Your task to perform on an android device: turn notification dots on Image 0: 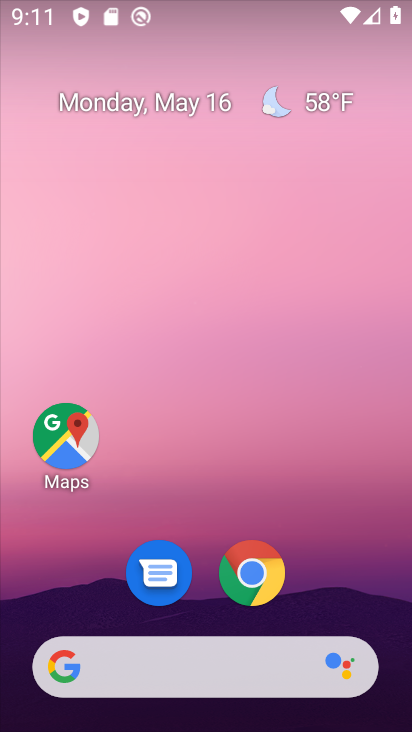
Step 0: click (293, 143)
Your task to perform on an android device: turn notification dots on Image 1: 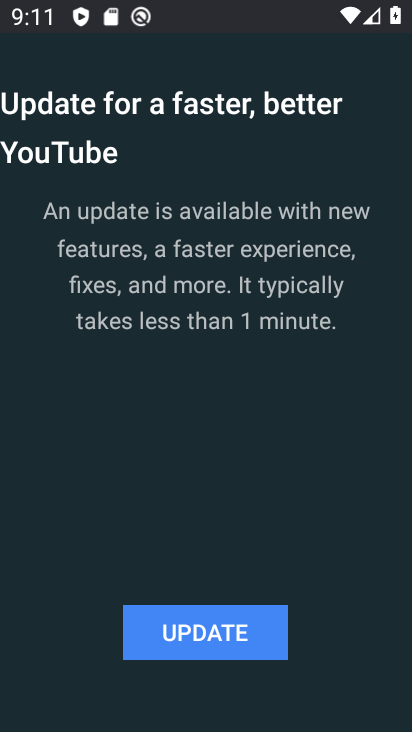
Step 1: press back button
Your task to perform on an android device: turn notification dots on Image 2: 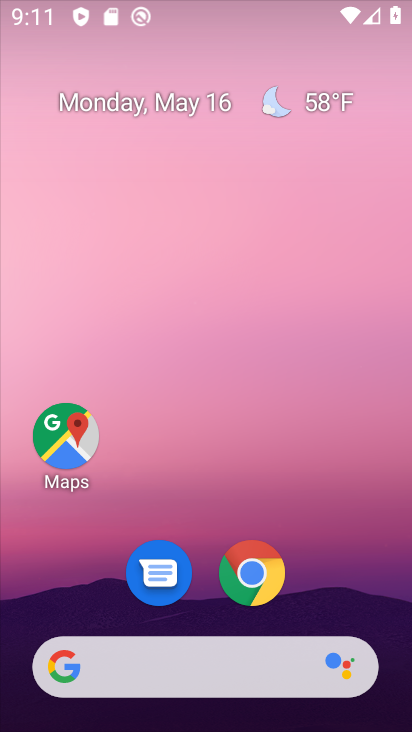
Step 2: drag from (361, 613) to (135, 82)
Your task to perform on an android device: turn notification dots on Image 3: 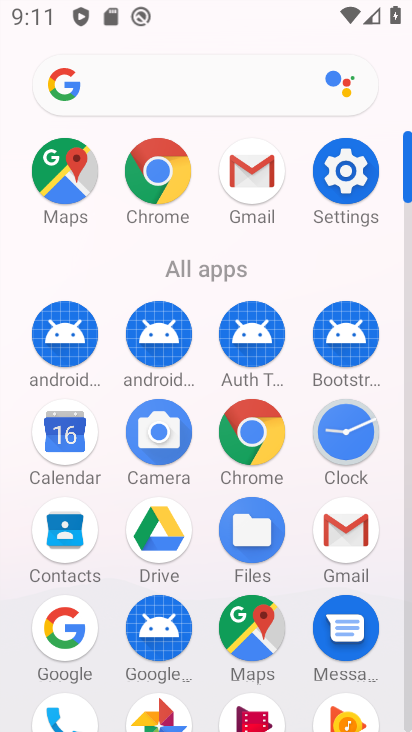
Step 3: click (338, 157)
Your task to perform on an android device: turn notification dots on Image 4: 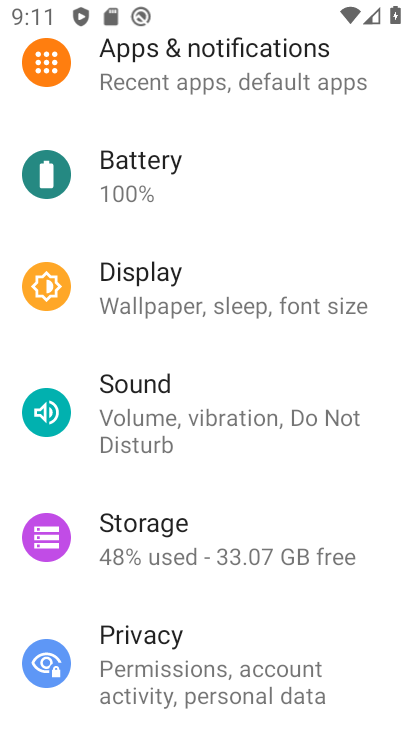
Step 4: click (224, 75)
Your task to perform on an android device: turn notification dots on Image 5: 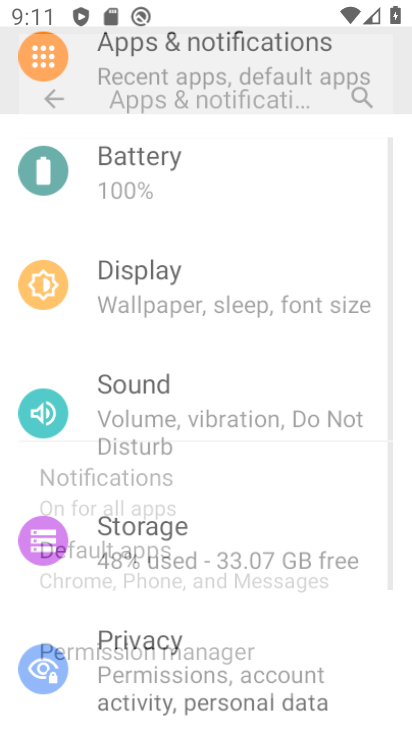
Step 5: click (224, 75)
Your task to perform on an android device: turn notification dots on Image 6: 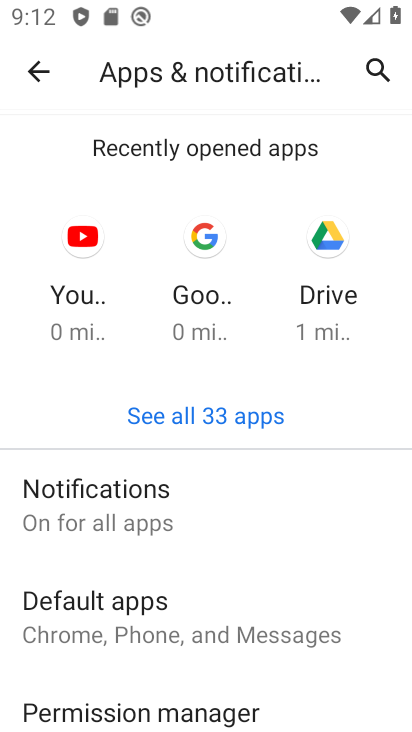
Step 6: click (74, 485)
Your task to perform on an android device: turn notification dots on Image 7: 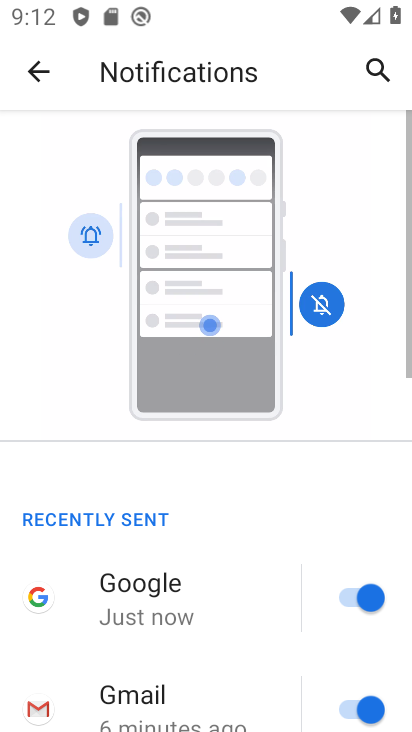
Step 7: drag from (191, 551) to (171, 142)
Your task to perform on an android device: turn notification dots on Image 8: 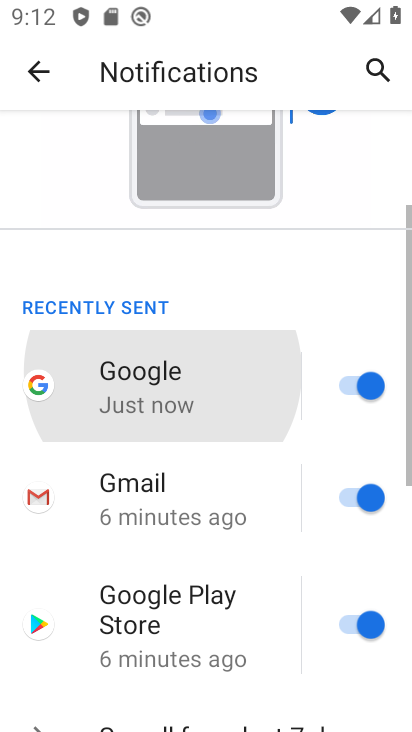
Step 8: drag from (222, 554) to (193, 166)
Your task to perform on an android device: turn notification dots on Image 9: 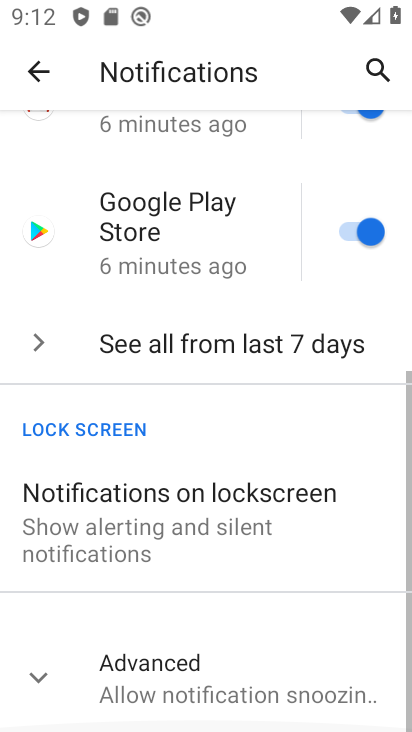
Step 9: drag from (239, 517) to (239, 179)
Your task to perform on an android device: turn notification dots on Image 10: 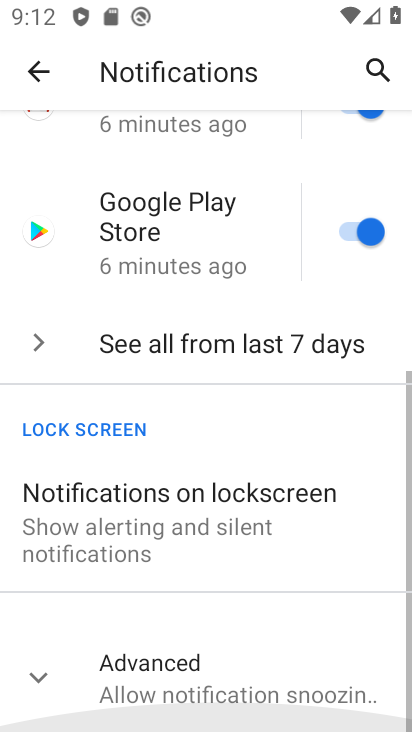
Step 10: drag from (266, 459) to (230, 167)
Your task to perform on an android device: turn notification dots on Image 11: 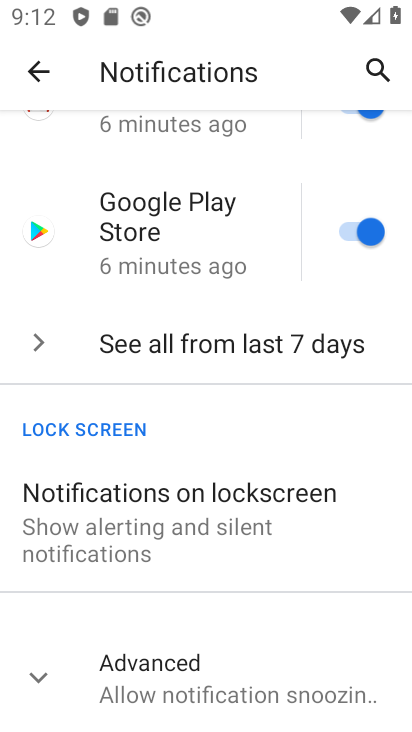
Step 11: click (158, 688)
Your task to perform on an android device: turn notification dots on Image 12: 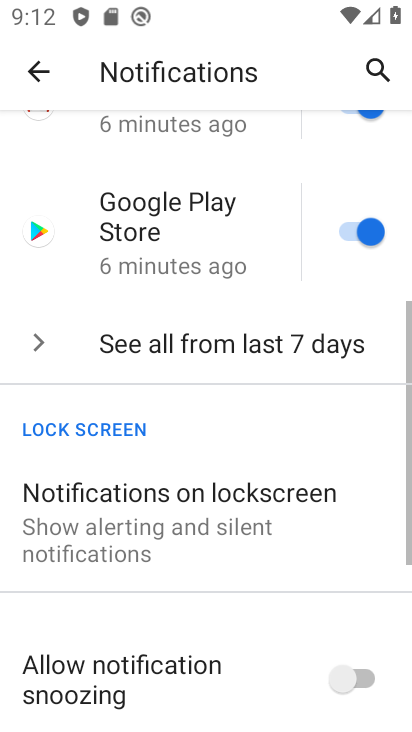
Step 12: drag from (171, 642) to (173, 233)
Your task to perform on an android device: turn notification dots on Image 13: 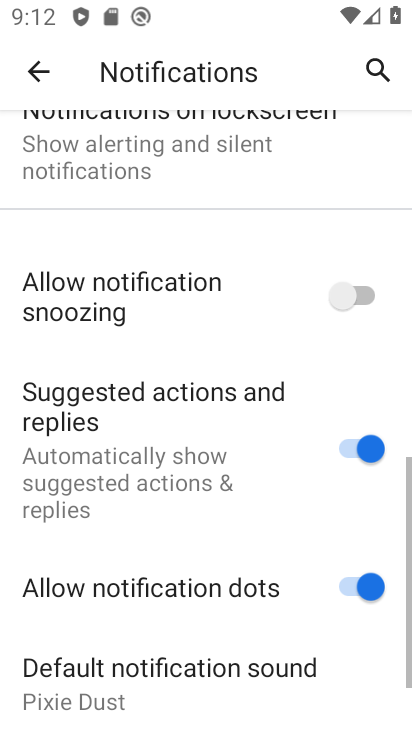
Step 13: drag from (227, 498) to (177, 96)
Your task to perform on an android device: turn notification dots on Image 14: 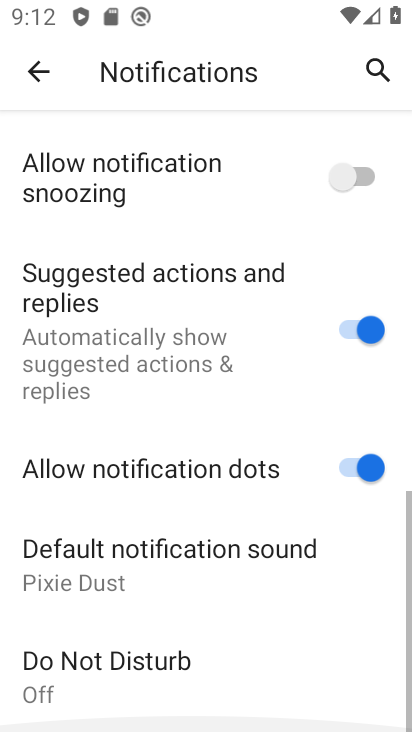
Step 14: drag from (244, 492) to (210, 138)
Your task to perform on an android device: turn notification dots on Image 15: 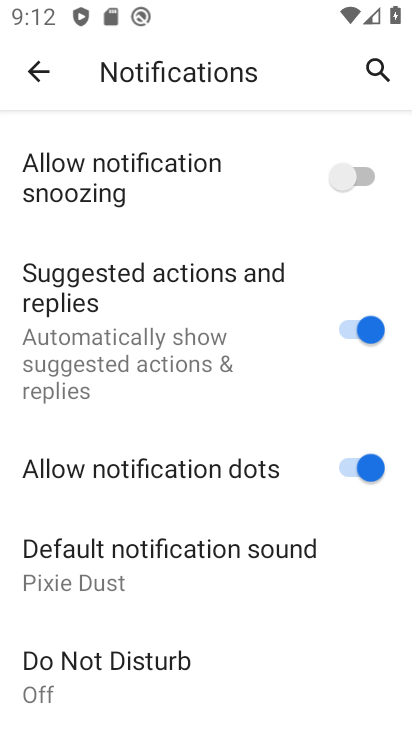
Step 15: click (374, 471)
Your task to perform on an android device: turn notification dots on Image 16: 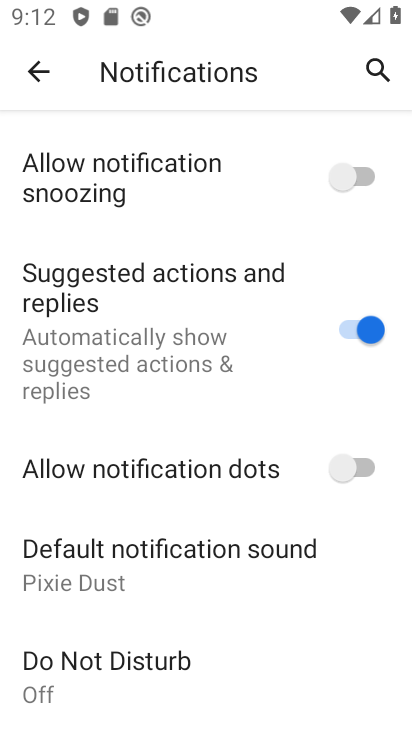
Step 16: click (346, 470)
Your task to perform on an android device: turn notification dots on Image 17: 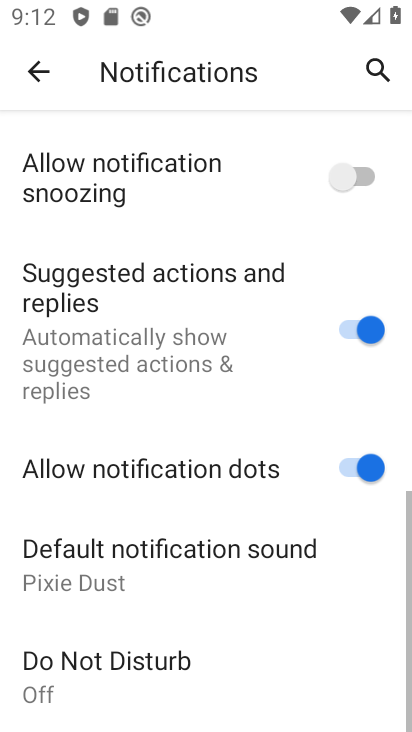
Step 17: task complete